Your task to perform on an android device: turn off sleep mode Image 0: 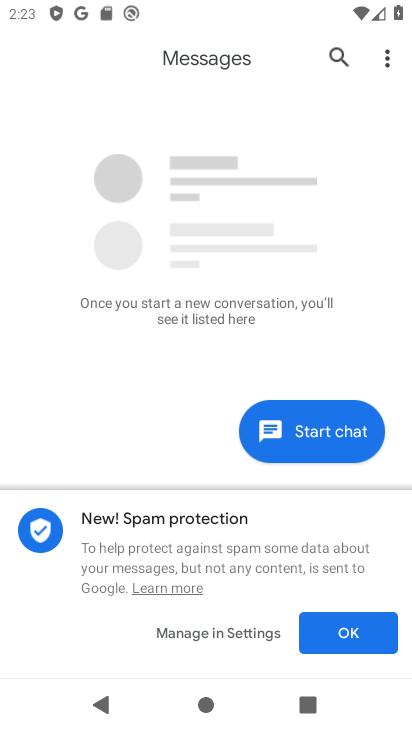
Step 0: press home button
Your task to perform on an android device: turn off sleep mode Image 1: 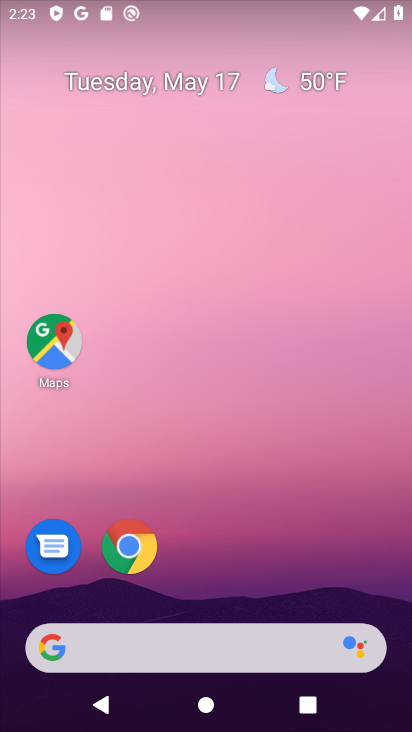
Step 1: drag from (215, 571) to (281, 0)
Your task to perform on an android device: turn off sleep mode Image 2: 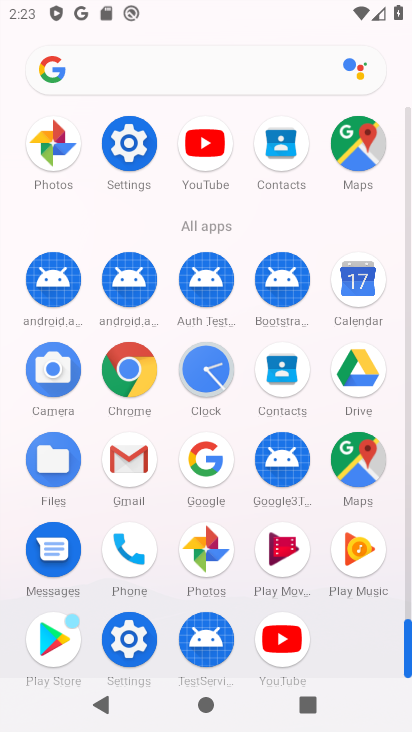
Step 2: click (134, 642)
Your task to perform on an android device: turn off sleep mode Image 3: 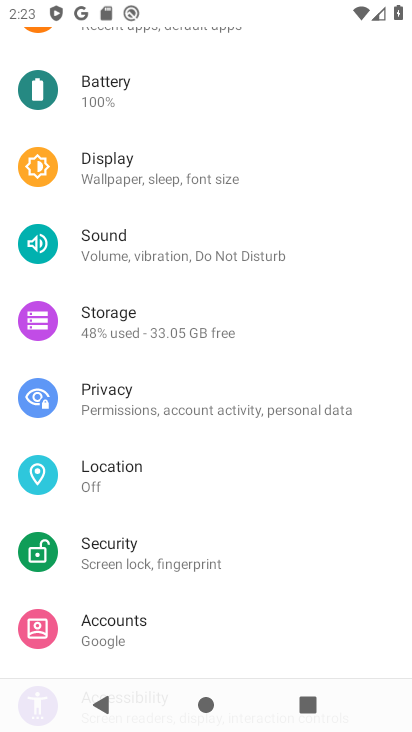
Step 3: drag from (268, 108) to (246, 567)
Your task to perform on an android device: turn off sleep mode Image 4: 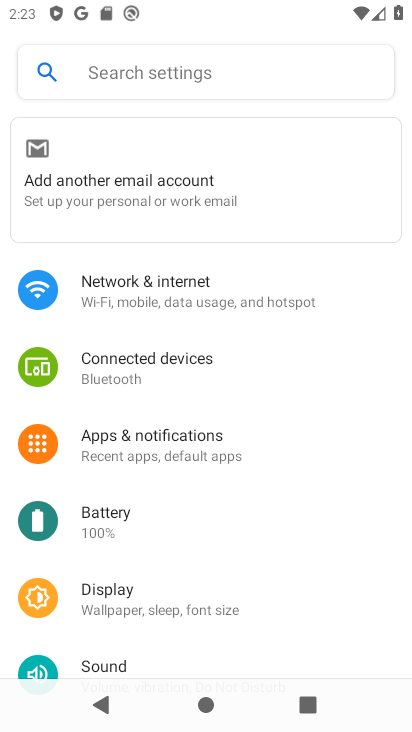
Step 4: click (188, 78)
Your task to perform on an android device: turn off sleep mode Image 5: 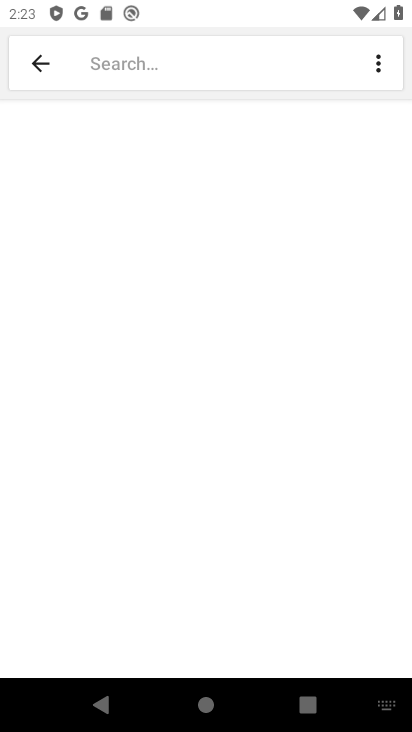
Step 5: type "sleep mode"
Your task to perform on an android device: turn off sleep mode Image 6: 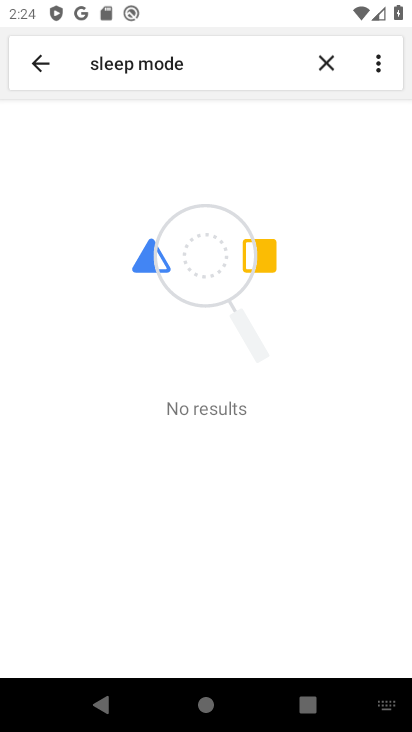
Step 6: task complete